Your task to perform on an android device: set the timer Image 0: 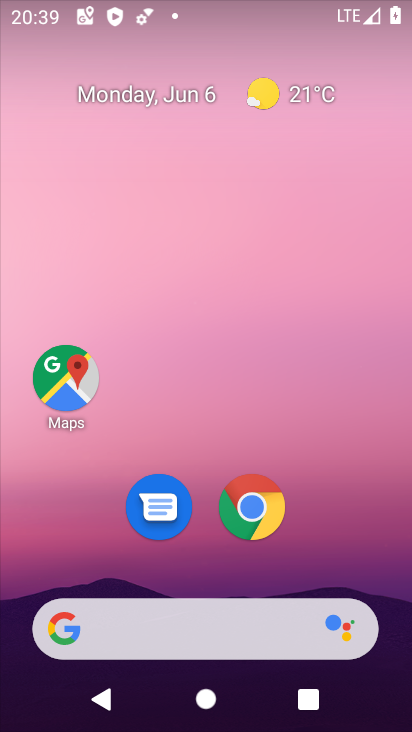
Step 0: drag from (176, 574) to (158, 20)
Your task to perform on an android device: set the timer Image 1: 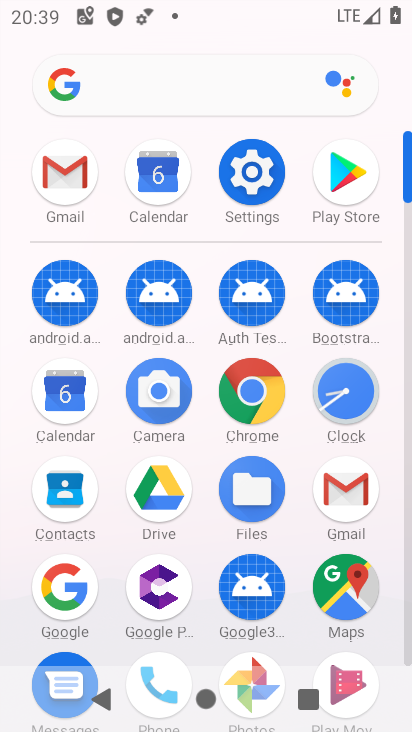
Step 1: click (347, 404)
Your task to perform on an android device: set the timer Image 2: 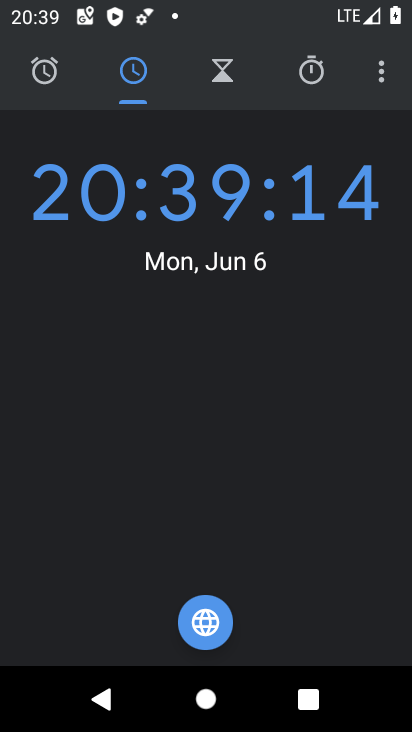
Step 2: click (318, 79)
Your task to perform on an android device: set the timer Image 3: 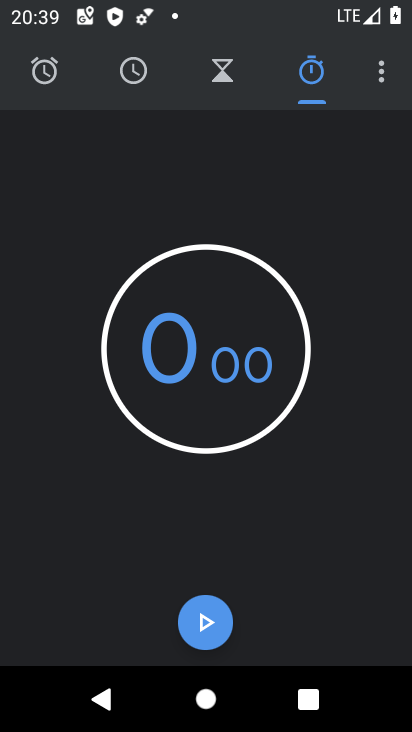
Step 3: click (220, 89)
Your task to perform on an android device: set the timer Image 4: 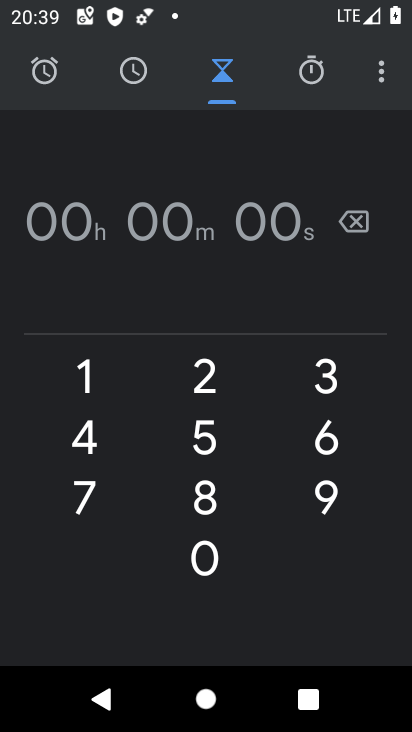
Step 4: click (199, 381)
Your task to perform on an android device: set the timer Image 5: 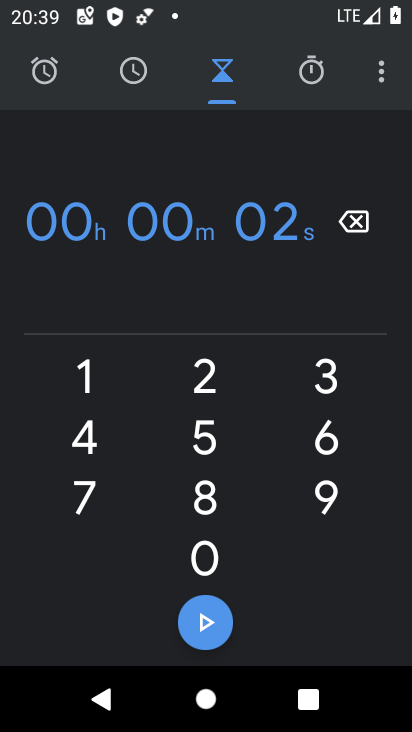
Step 5: click (218, 577)
Your task to perform on an android device: set the timer Image 6: 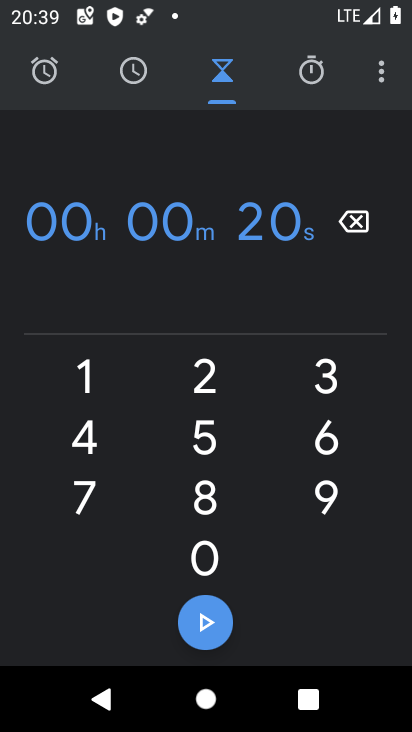
Step 6: click (210, 384)
Your task to perform on an android device: set the timer Image 7: 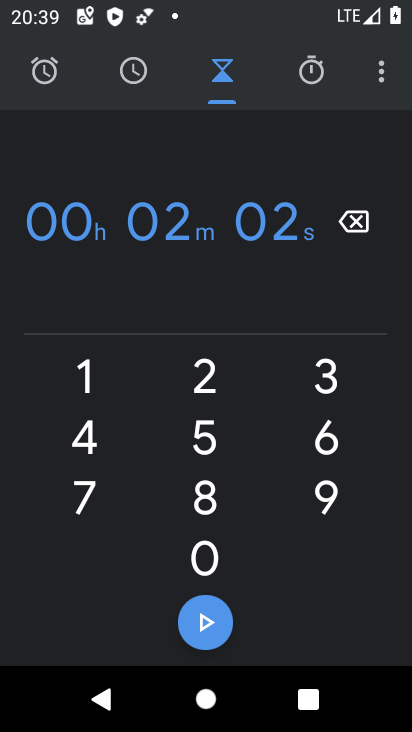
Step 7: click (217, 566)
Your task to perform on an android device: set the timer Image 8: 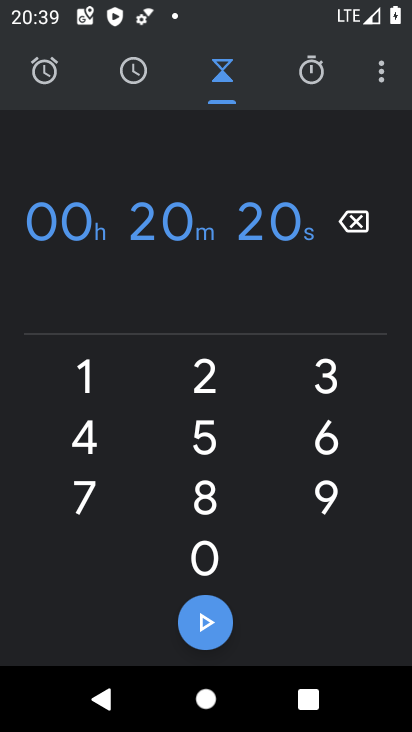
Step 8: click (204, 637)
Your task to perform on an android device: set the timer Image 9: 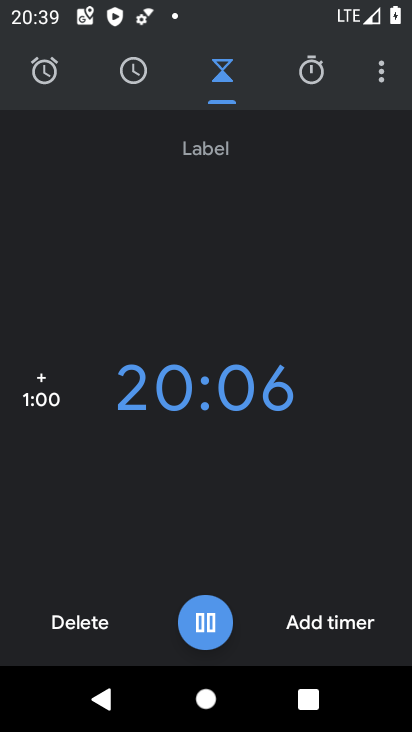
Step 9: click (338, 615)
Your task to perform on an android device: set the timer Image 10: 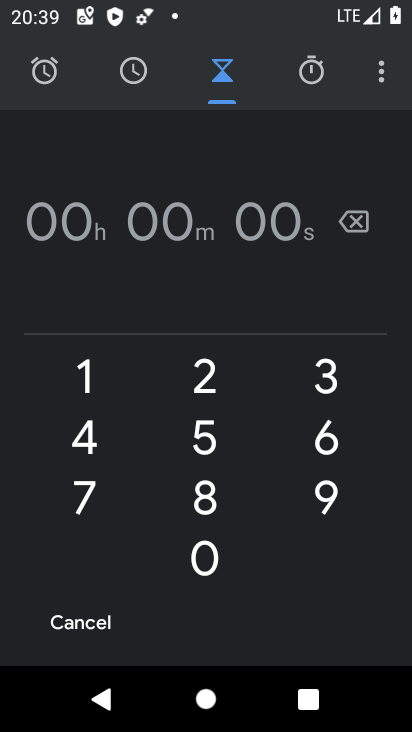
Step 10: task complete